Your task to perform on an android device: Search for Italian restaurants on Maps Image 0: 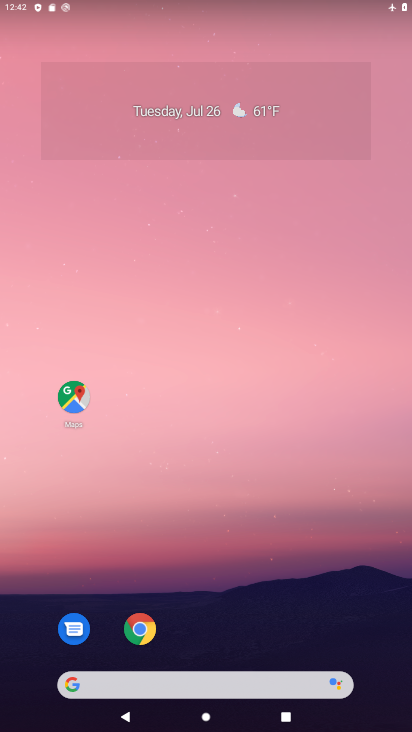
Step 0: click (70, 400)
Your task to perform on an android device: Search for Italian restaurants on Maps Image 1: 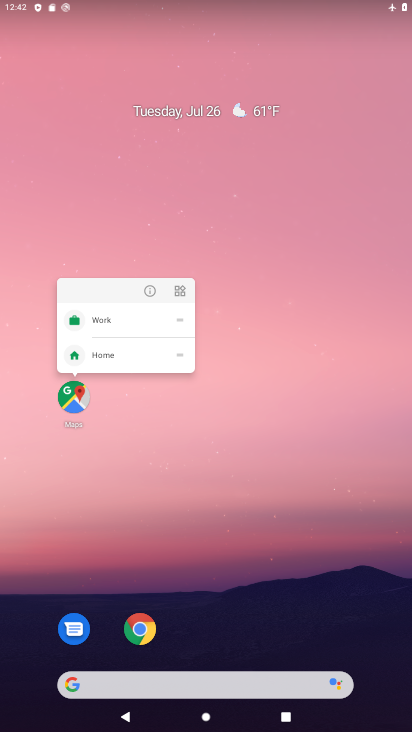
Step 1: click (70, 400)
Your task to perform on an android device: Search for Italian restaurants on Maps Image 2: 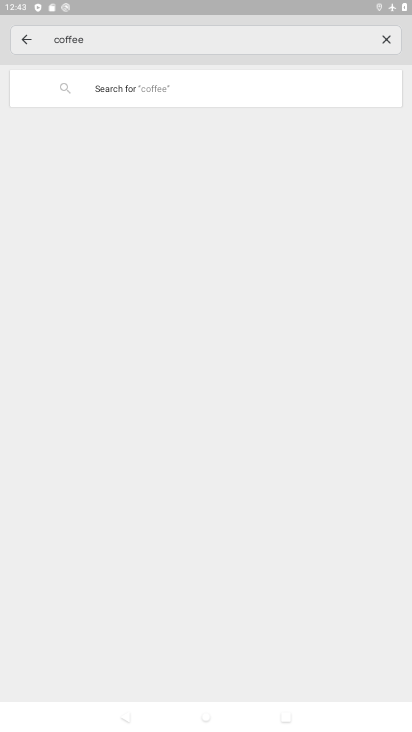
Step 2: click (24, 35)
Your task to perform on an android device: Search for Italian restaurants on Maps Image 3: 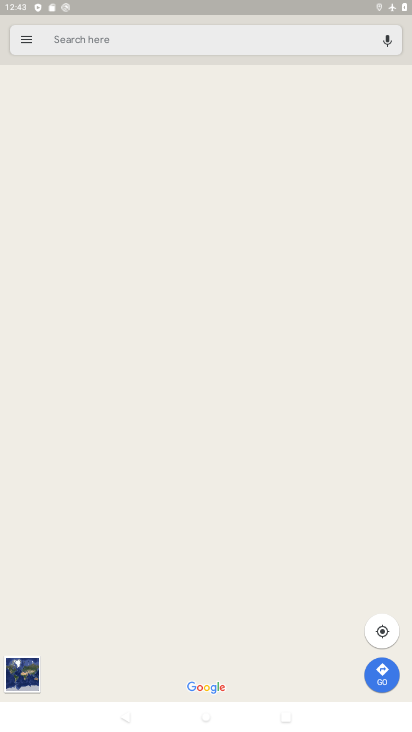
Step 3: task complete